Your task to perform on an android device: Go to Amazon Image 0: 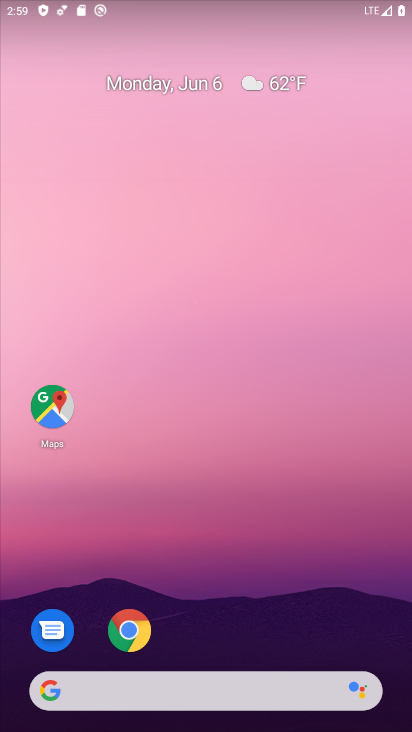
Step 0: click (128, 623)
Your task to perform on an android device: Go to Amazon Image 1: 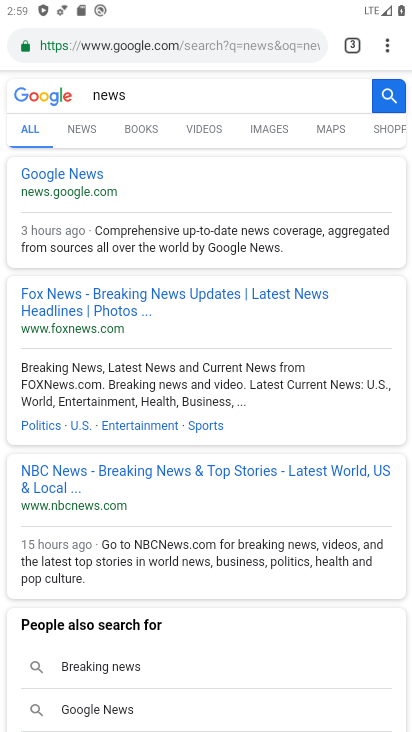
Step 1: drag from (388, 39) to (331, 107)
Your task to perform on an android device: Go to Amazon Image 2: 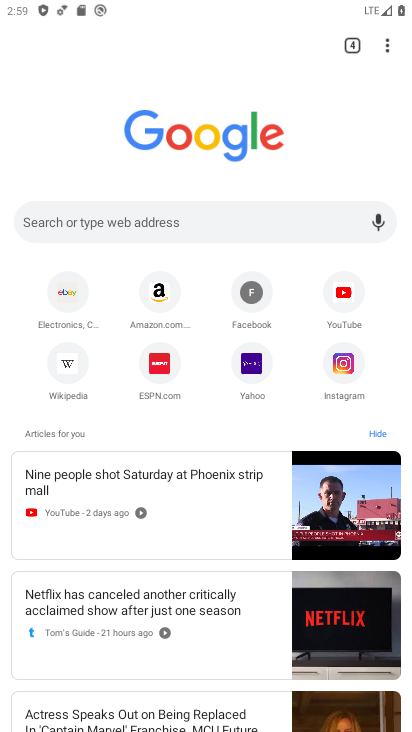
Step 2: click (175, 313)
Your task to perform on an android device: Go to Amazon Image 3: 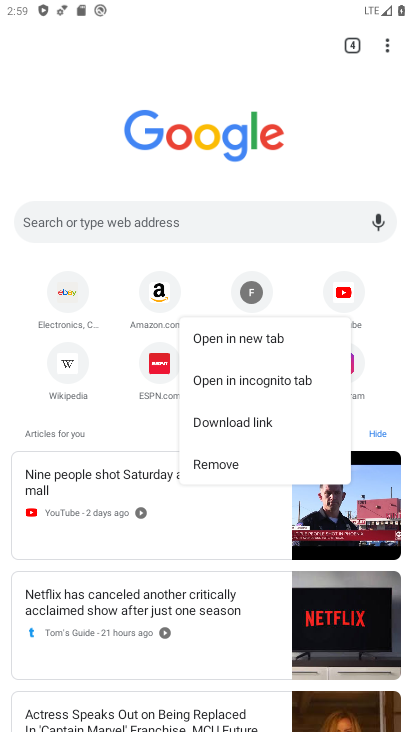
Step 3: click (151, 301)
Your task to perform on an android device: Go to Amazon Image 4: 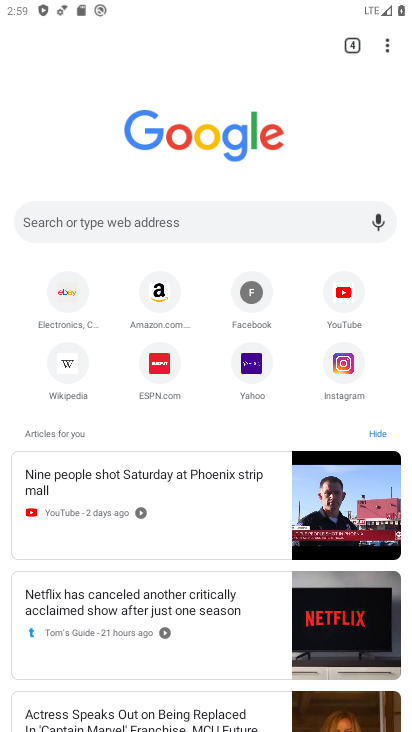
Step 4: click (153, 286)
Your task to perform on an android device: Go to Amazon Image 5: 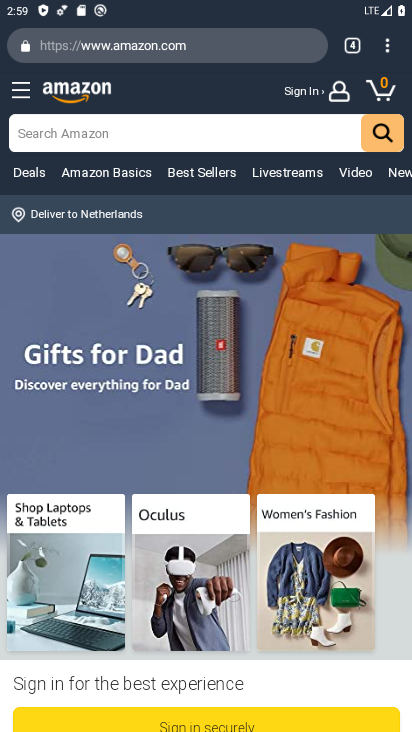
Step 5: task complete